Your task to perform on an android device: Go to display settings Image 0: 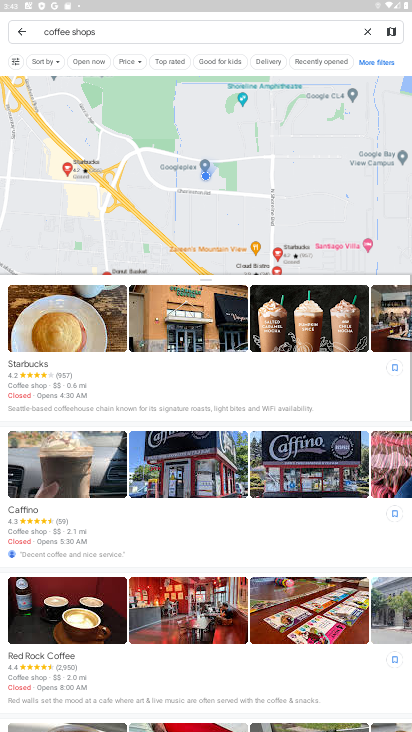
Step 0: press home button
Your task to perform on an android device: Go to display settings Image 1: 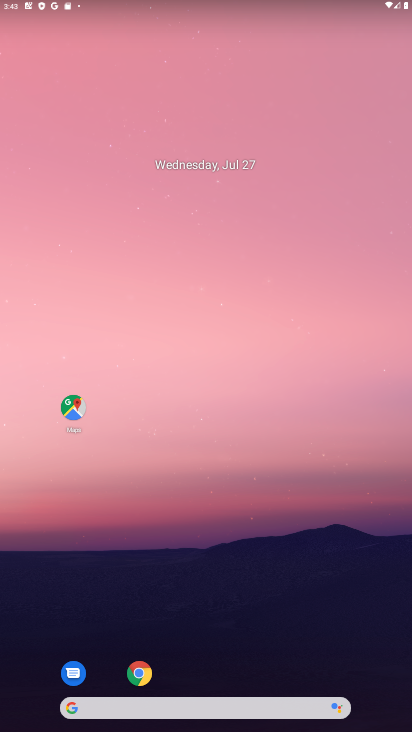
Step 1: drag from (307, 627) to (240, 156)
Your task to perform on an android device: Go to display settings Image 2: 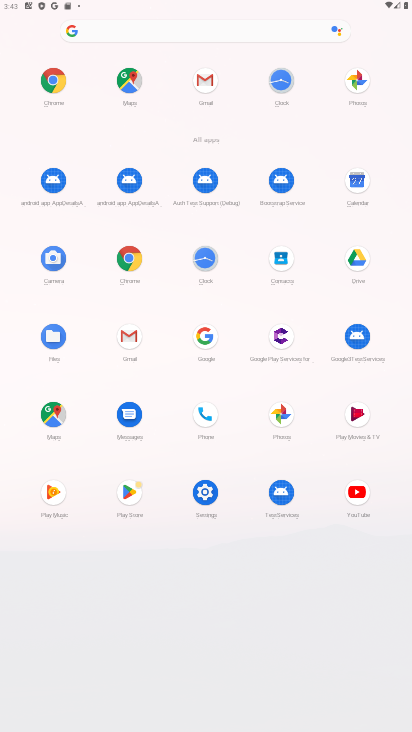
Step 2: click (205, 499)
Your task to perform on an android device: Go to display settings Image 3: 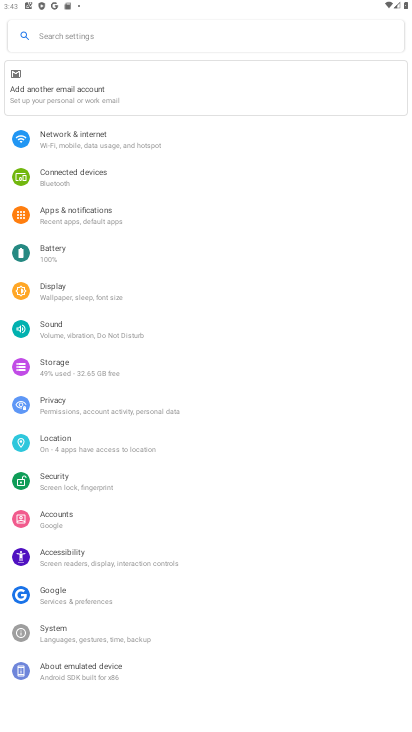
Step 3: click (134, 297)
Your task to perform on an android device: Go to display settings Image 4: 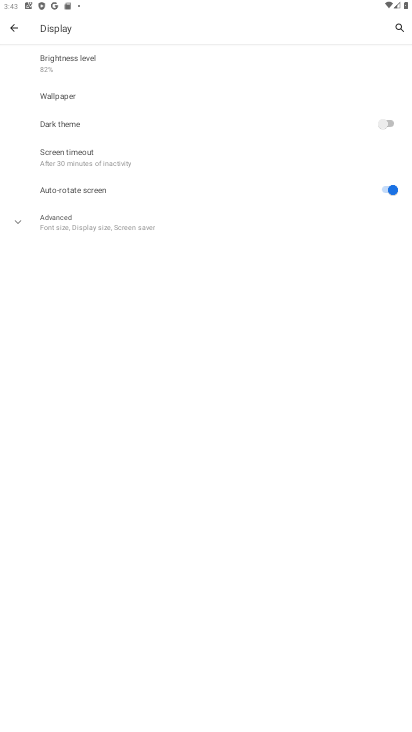
Step 4: task complete